Your task to perform on an android device: Open the map Image 0: 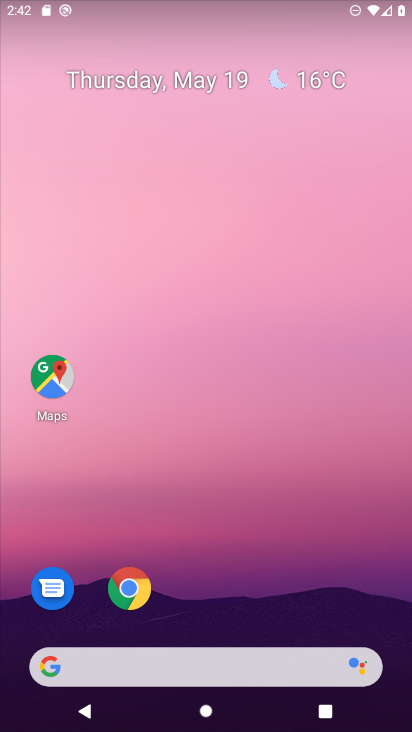
Step 0: click (63, 373)
Your task to perform on an android device: Open the map Image 1: 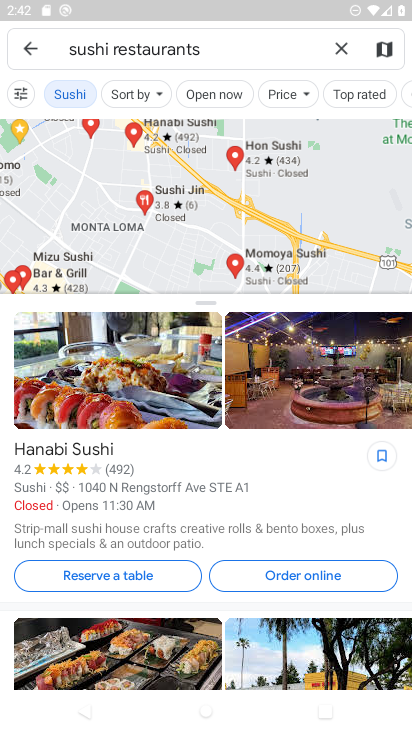
Step 1: task complete